Your task to perform on an android device: turn on data saver in the chrome app Image 0: 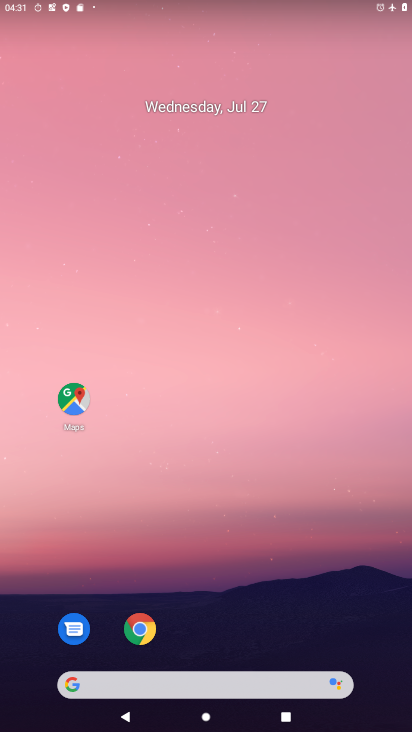
Step 0: drag from (298, 632) to (275, 49)
Your task to perform on an android device: turn on data saver in the chrome app Image 1: 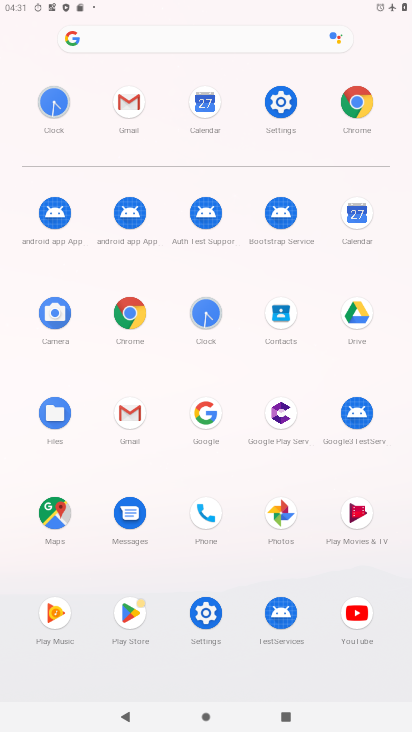
Step 1: click (290, 94)
Your task to perform on an android device: turn on data saver in the chrome app Image 2: 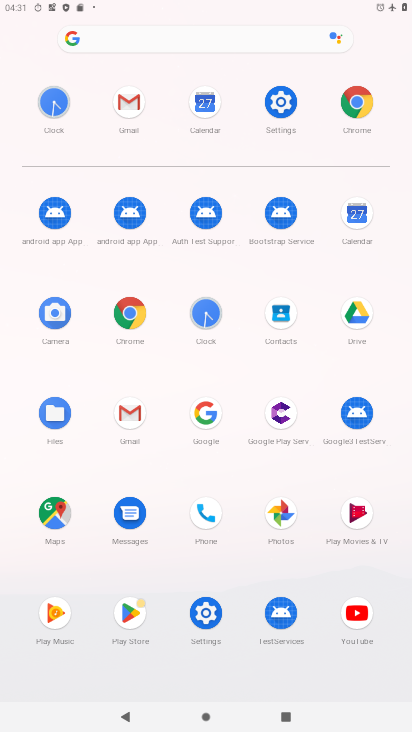
Step 2: click (349, 101)
Your task to perform on an android device: turn on data saver in the chrome app Image 3: 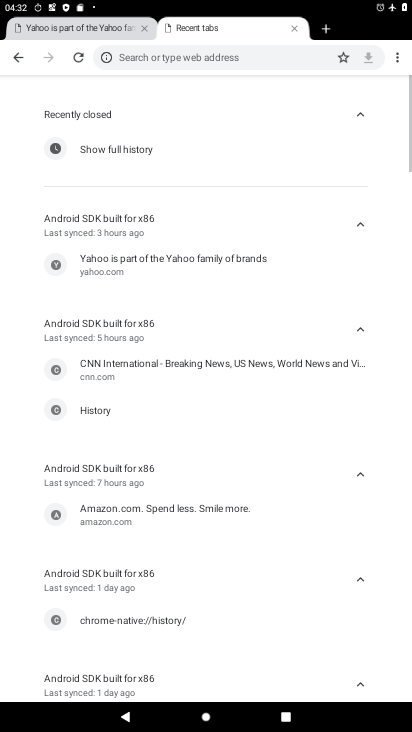
Step 3: drag from (397, 51) to (279, 273)
Your task to perform on an android device: turn on data saver in the chrome app Image 4: 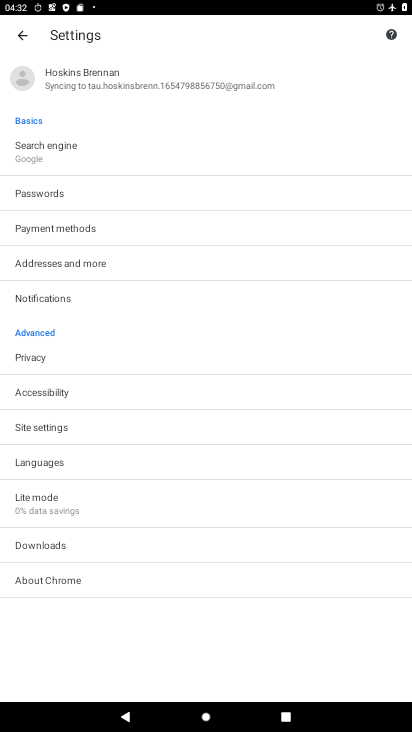
Step 4: click (78, 495)
Your task to perform on an android device: turn on data saver in the chrome app Image 5: 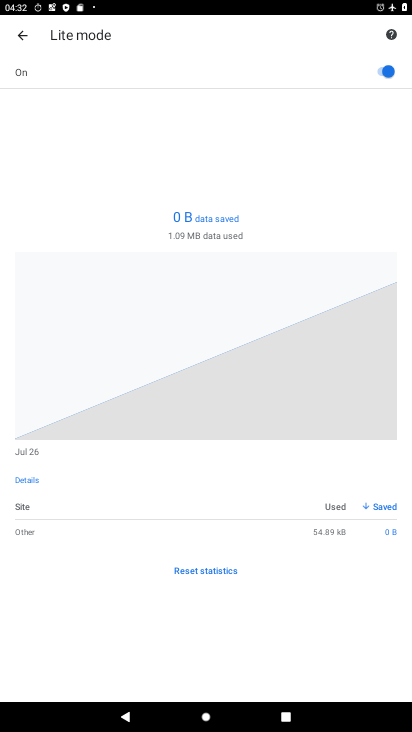
Step 5: task complete